Your task to perform on an android device: open wifi settings Image 0: 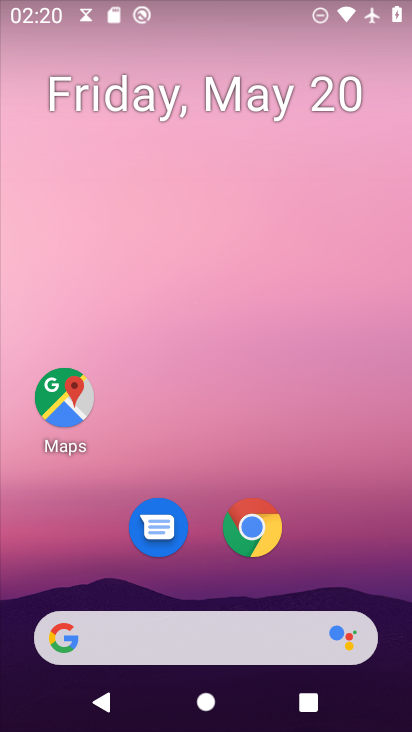
Step 0: press home button
Your task to perform on an android device: open wifi settings Image 1: 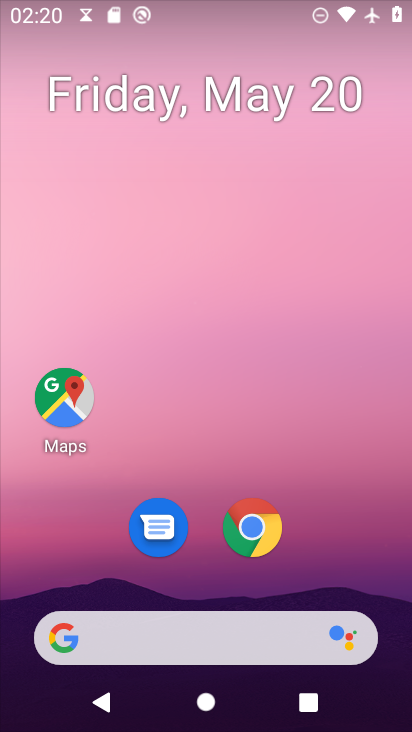
Step 1: drag from (175, 613) to (240, 167)
Your task to perform on an android device: open wifi settings Image 2: 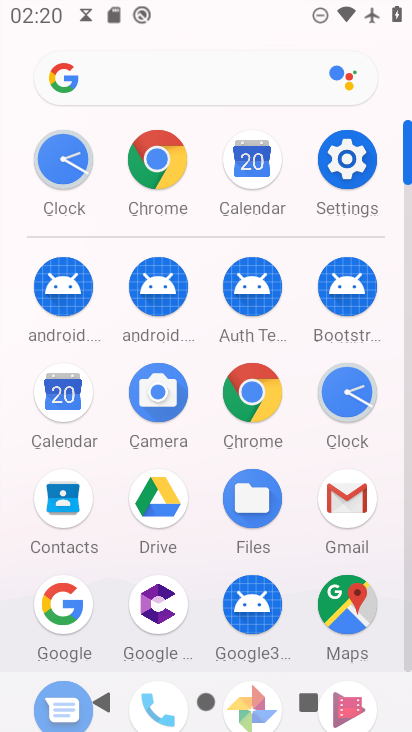
Step 2: click (338, 169)
Your task to perform on an android device: open wifi settings Image 3: 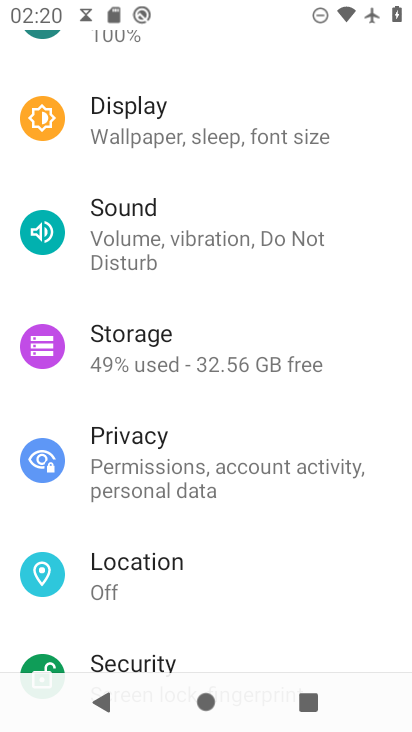
Step 3: drag from (279, 97) to (242, 593)
Your task to perform on an android device: open wifi settings Image 4: 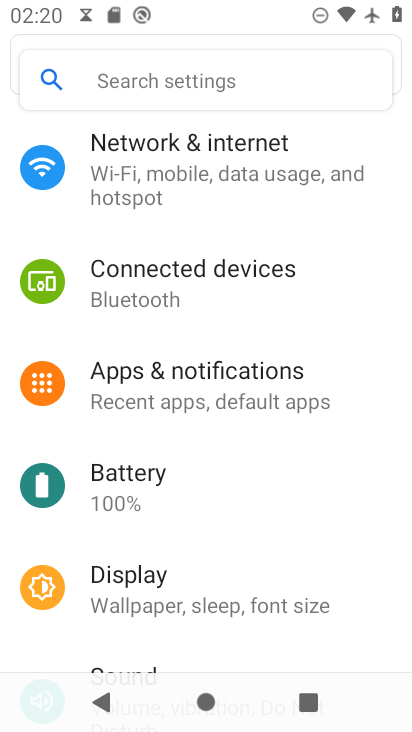
Step 4: drag from (284, 235) to (258, 586)
Your task to perform on an android device: open wifi settings Image 5: 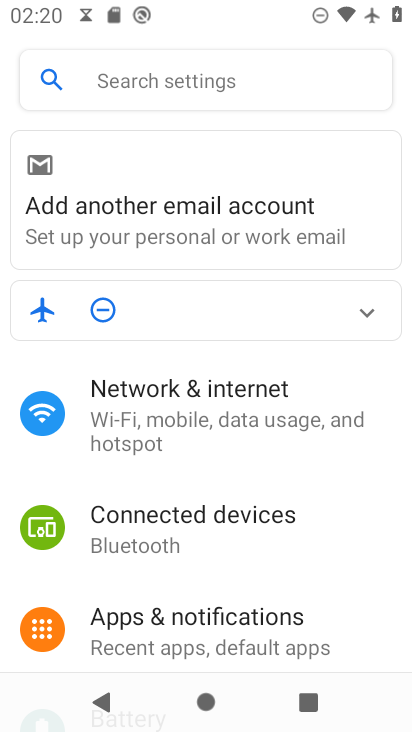
Step 5: click (217, 396)
Your task to perform on an android device: open wifi settings Image 6: 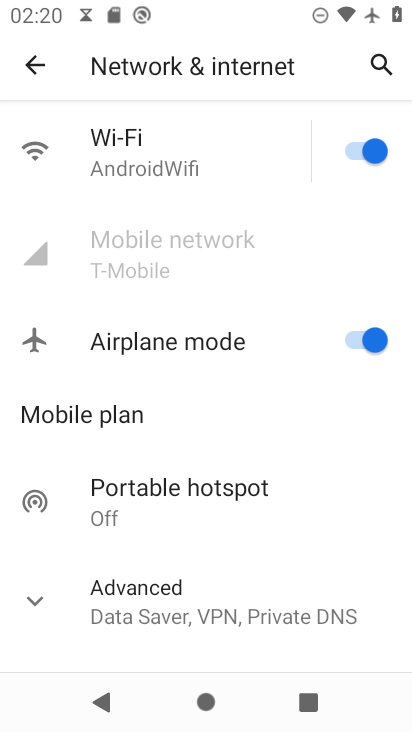
Step 6: click (123, 167)
Your task to perform on an android device: open wifi settings Image 7: 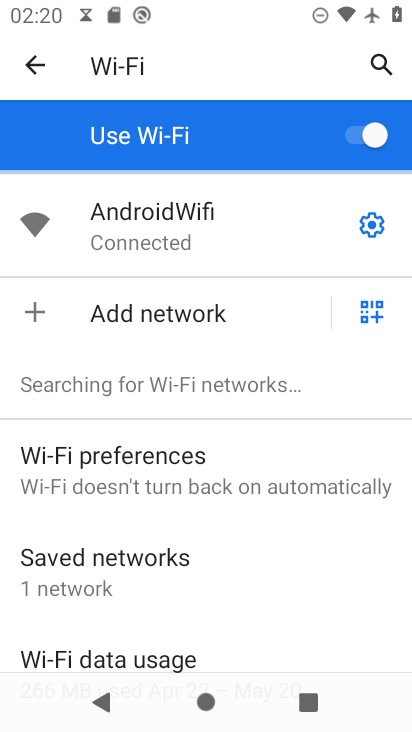
Step 7: task complete